Your task to perform on an android device: set the timer Image 0: 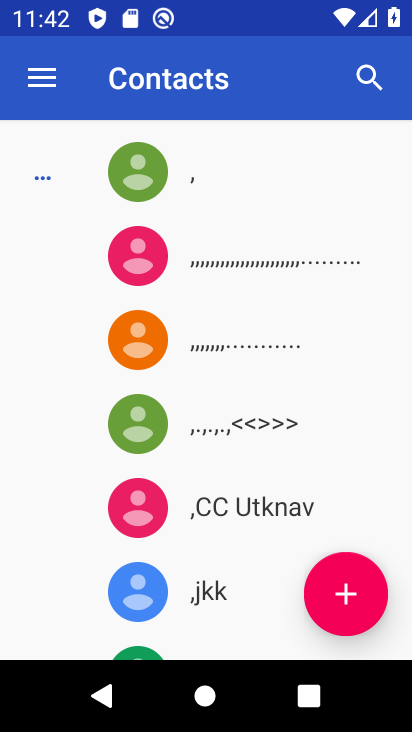
Step 0: press home button
Your task to perform on an android device: set the timer Image 1: 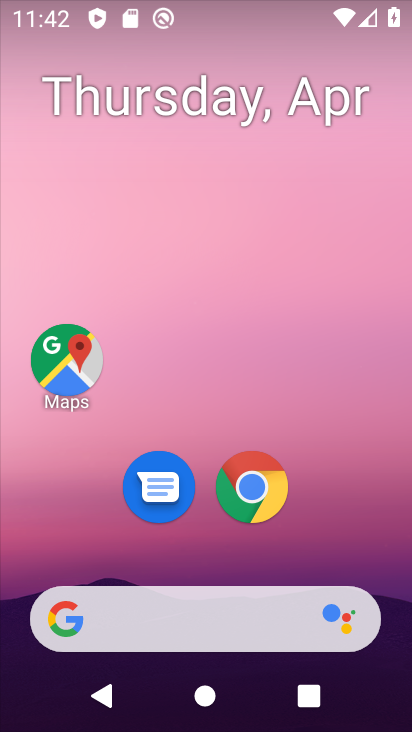
Step 1: drag from (338, 386) to (348, 195)
Your task to perform on an android device: set the timer Image 2: 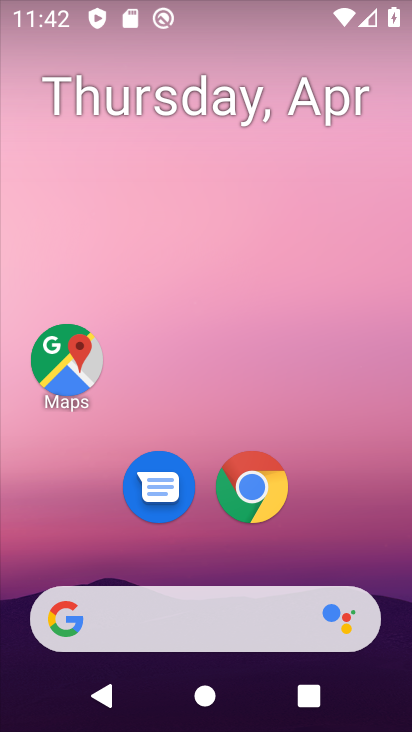
Step 2: drag from (212, 348) to (255, 94)
Your task to perform on an android device: set the timer Image 3: 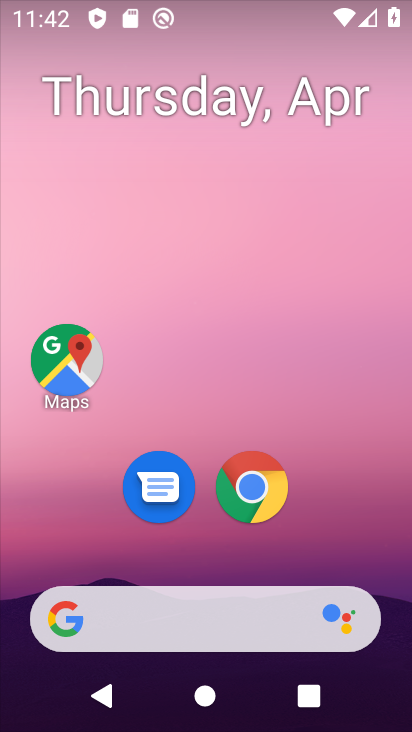
Step 3: drag from (206, 565) to (245, 122)
Your task to perform on an android device: set the timer Image 4: 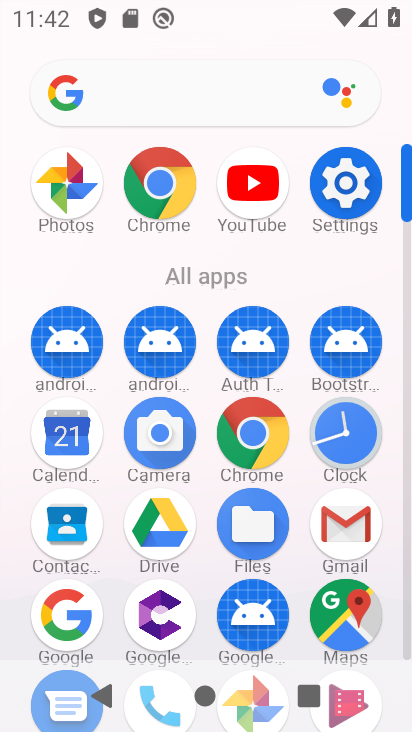
Step 4: click (339, 434)
Your task to perform on an android device: set the timer Image 5: 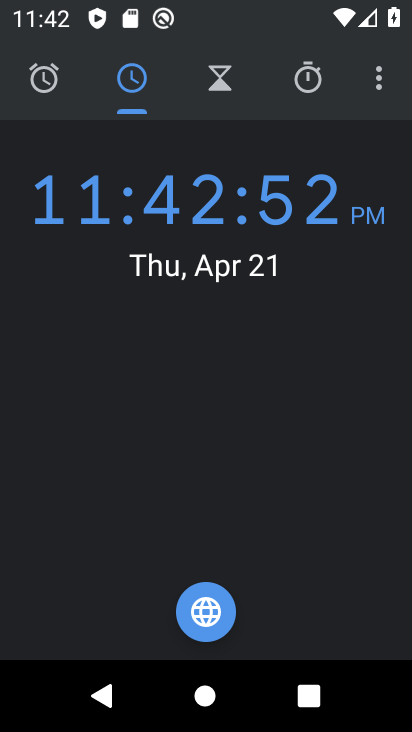
Step 5: click (42, 74)
Your task to perform on an android device: set the timer Image 6: 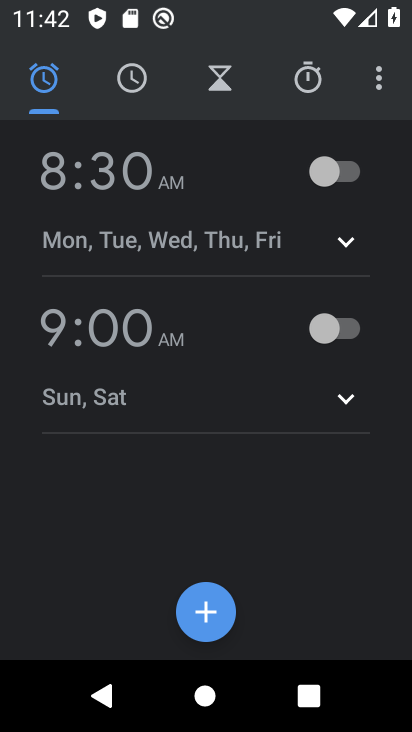
Step 6: click (205, 76)
Your task to perform on an android device: set the timer Image 7: 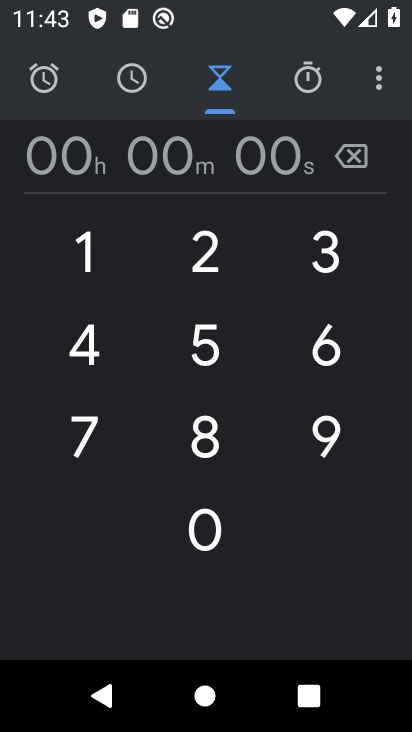
Step 7: click (72, 149)
Your task to perform on an android device: set the timer Image 8: 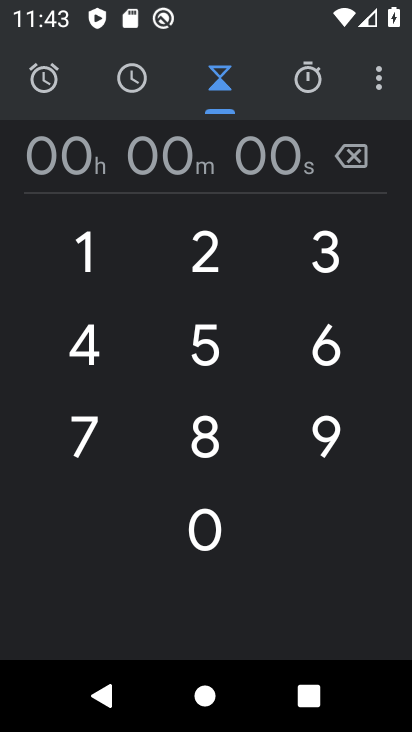
Step 8: type "3"
Your task to perform on an android device: set the timer Image 9: 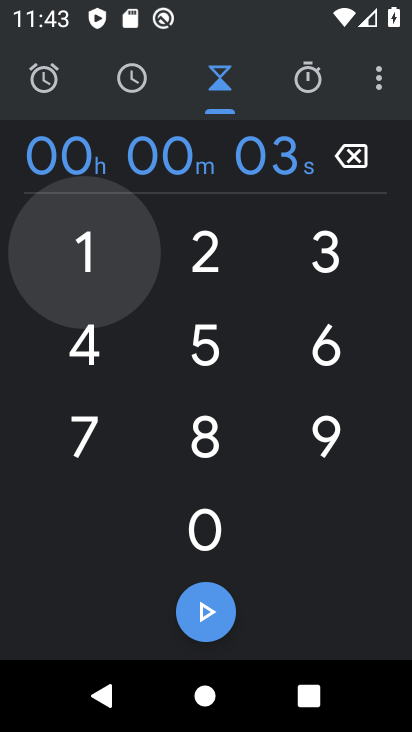
Step 9: type "00"
Your task to perform on an android device: set the timer Image 10: 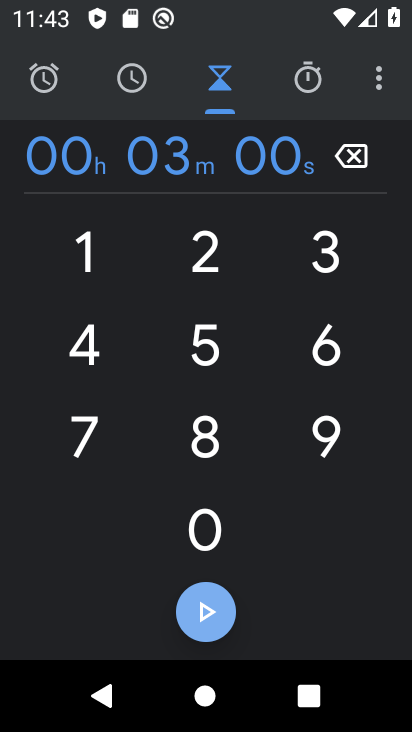
Step 10: type "90"
Your task to perform on an android device: set the timer Image 11: 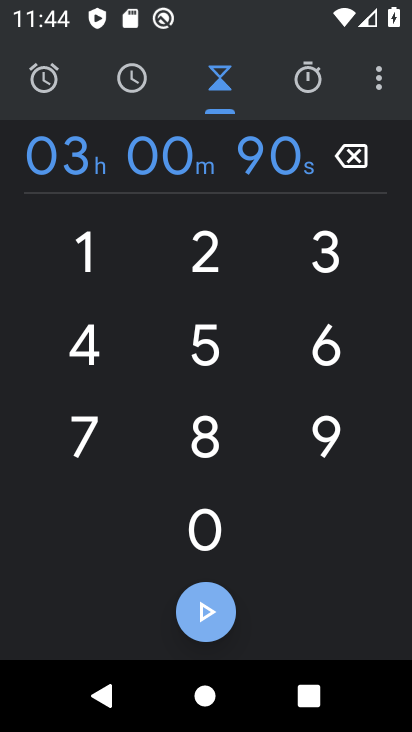
Step 11: click (204, 613)
Your task to perform on an android device: set the timer Image 12: 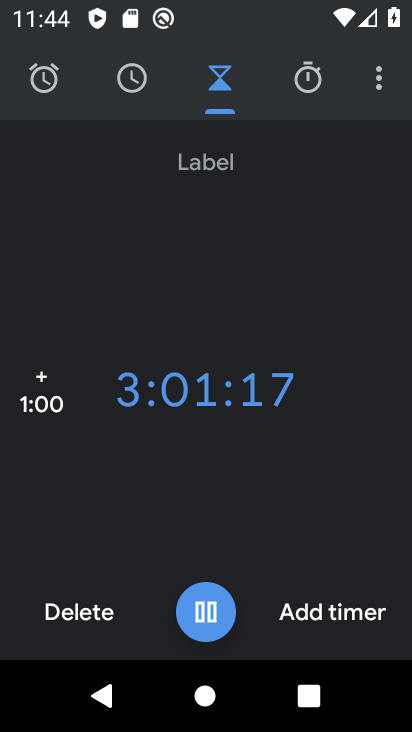
Step 12: click (198, 610)
Your task to perform on an android device: set the timer Image 13: 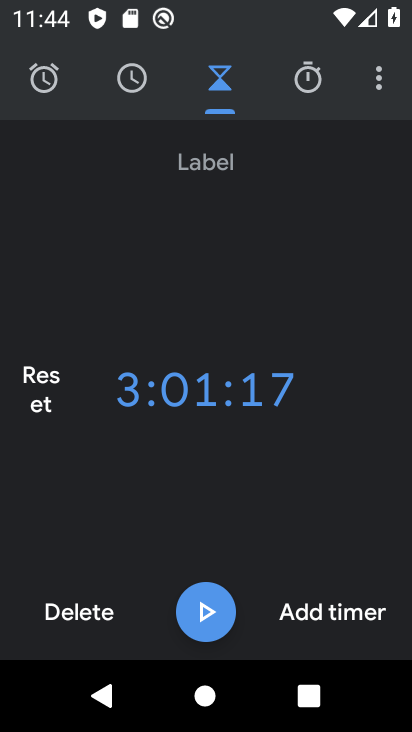
Step 13: task complete